Your task to perform on an android device: Open the stopwatch Image 0: 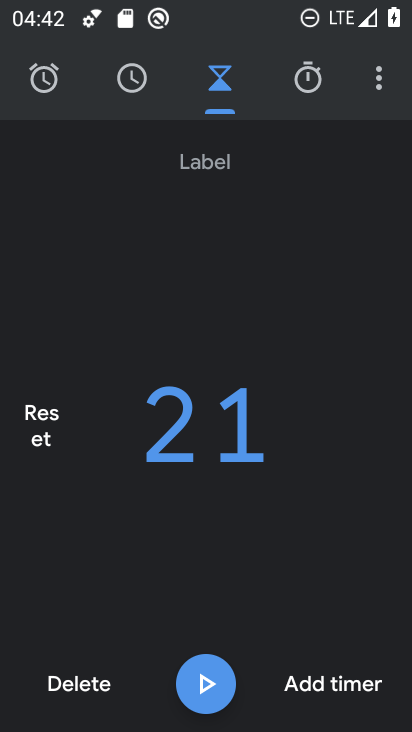
Step 0: click (311, 85)
Your task to perform on an android device: Open the stopwatch Image 1: 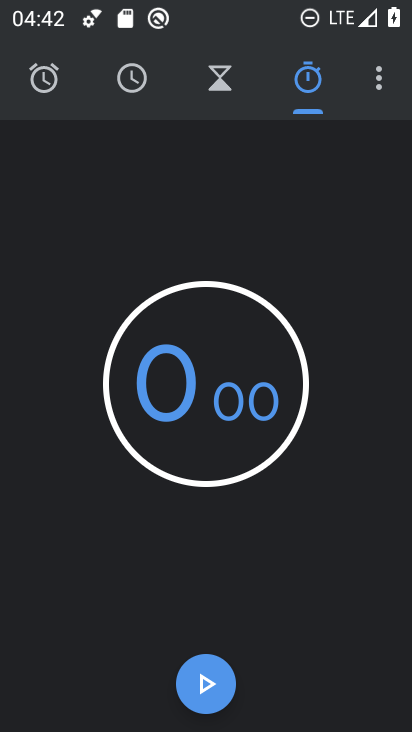
Step 1: task complete